Your task to perform on an android device: change timer sound Image 0: 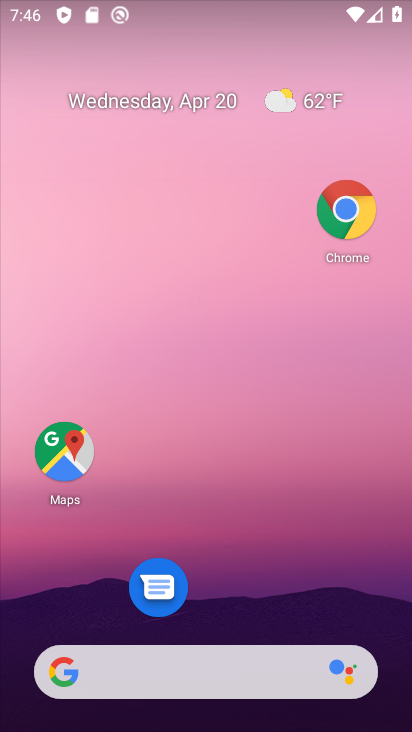
Step 0: drag from (258, 612) to (287, 47)
Your task to perform on an android device: change timer sound Image 1: 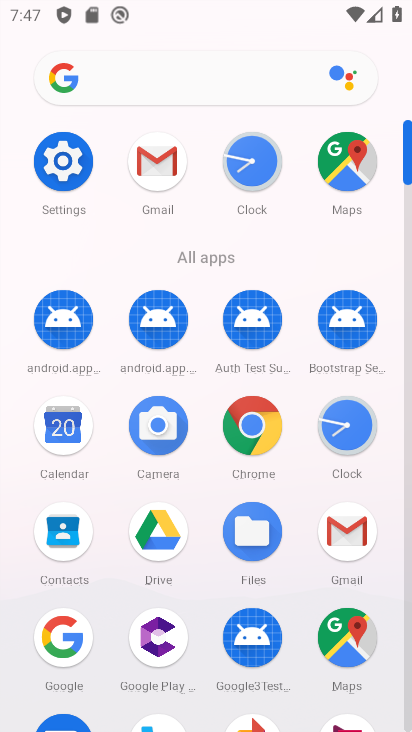
Step 1: click (350, 436)
Your task to perform on an android device: change timer sound Image 2: 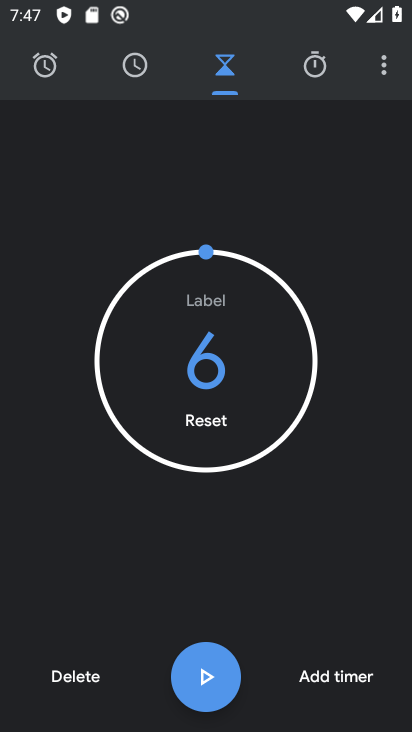
Step 2: click (379, 82)
Your task to perform on an android device: change timer sound Image 3: 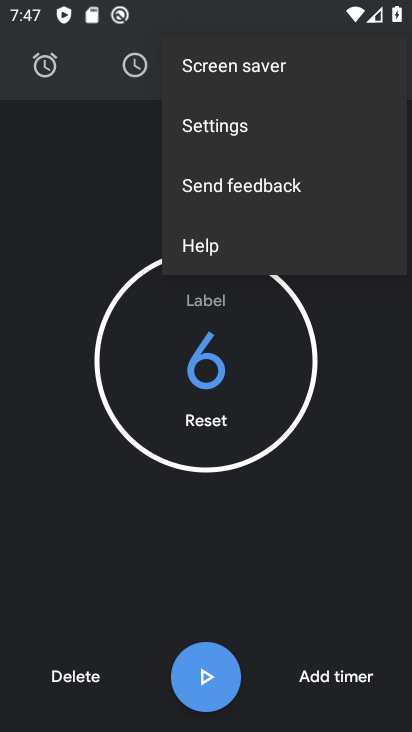
Step 3: click (279, 122)
Your task to perform on an android device: change timer sound Image 4: 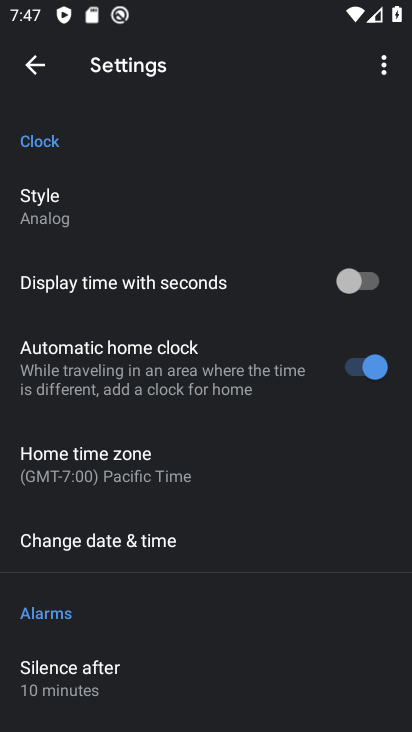
Step 4: drag from (135, 665) to (217, 192)
Your task to perform on an android device: change timer sound Image 5: 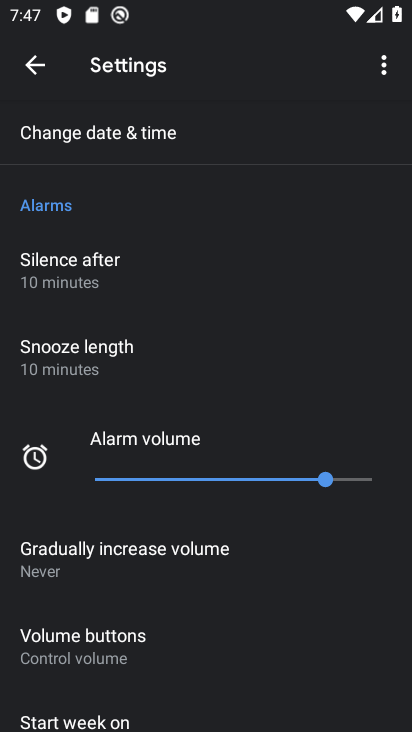
Step 5: drag from (176, 657) to (200, 262)
Your task to perform on an android device: change timer sound Image 6: 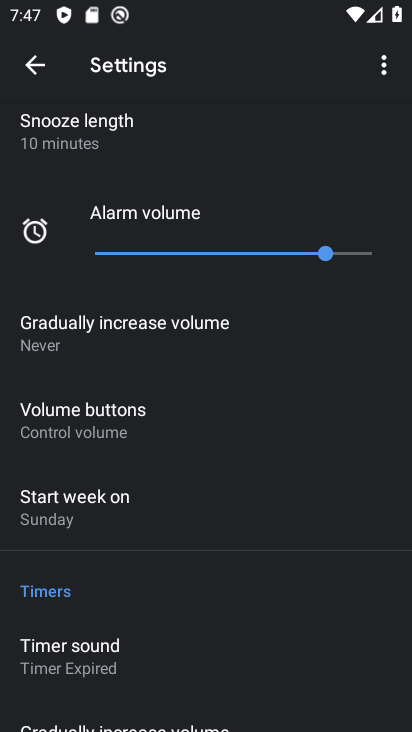
Step 6: click (137, 659)
Your task to perform on an android device: change timer sound Image 7: 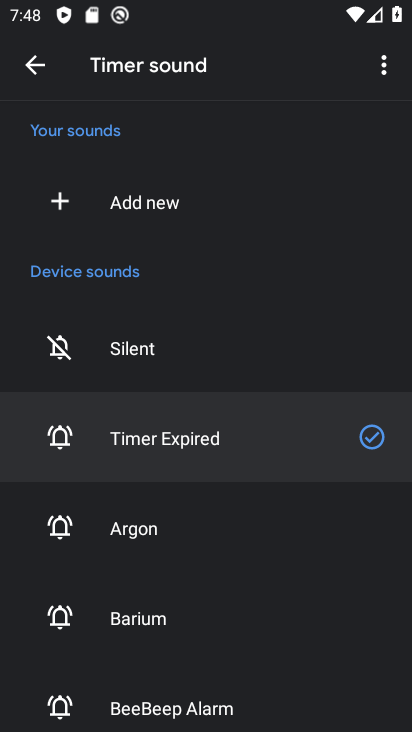
Step 7: click (137, 659)
Your task to perform on an android device: change timer sound Image 8: 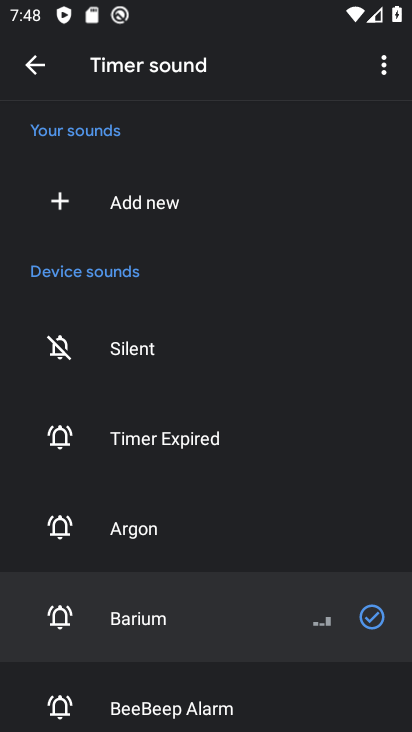
Step 8: task complete